Your task to perform on an android device: Search for seafood restaurants on Google Maps Image 0: 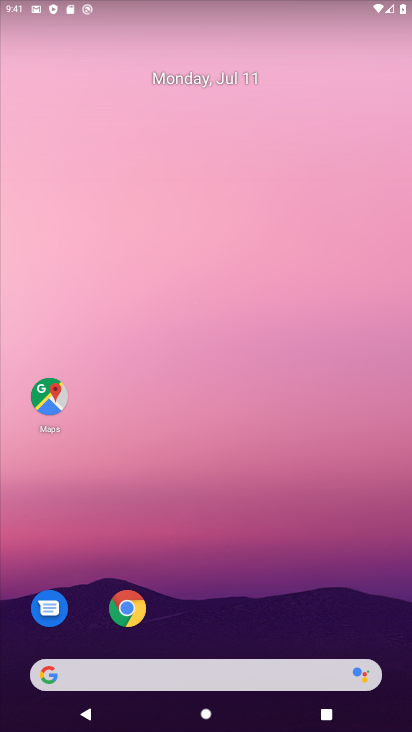
Step 0: drag from (298, 633) to (270, 209)
Your task to perform on an android device: Search for seafood restaurants on Google Maps Image 1: 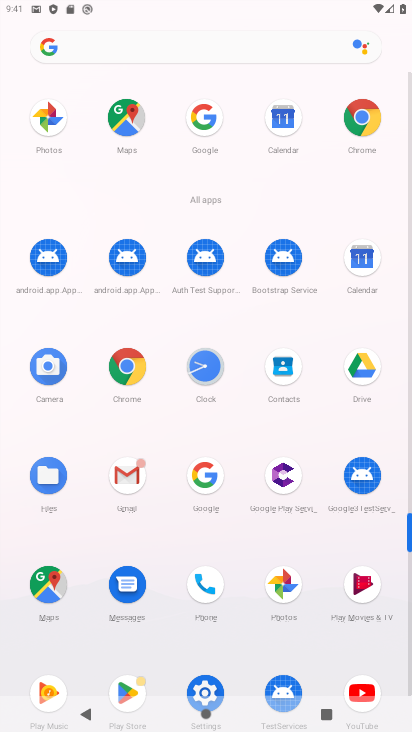
Step 1: click (55, 578)
Your task to perform on an android device: Search for seafood restaurants on Google Maps Image 2: 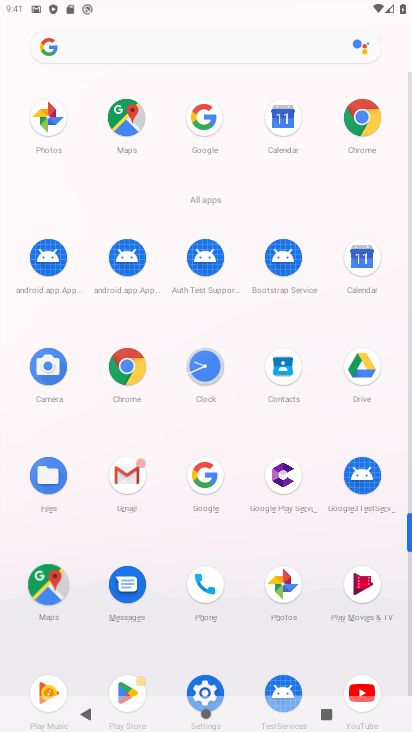
Step 2: click (54, 581)
Your task to perform on an android device: Search for seafood restaurants on Google Maps Image 3: 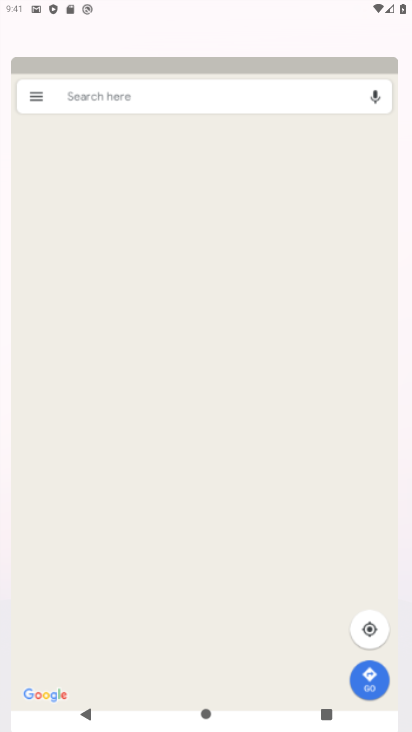
Step 3: click (53, 581)
Your task to perform on an android device: Search for seafood restaurants on Google Maps Image 4: 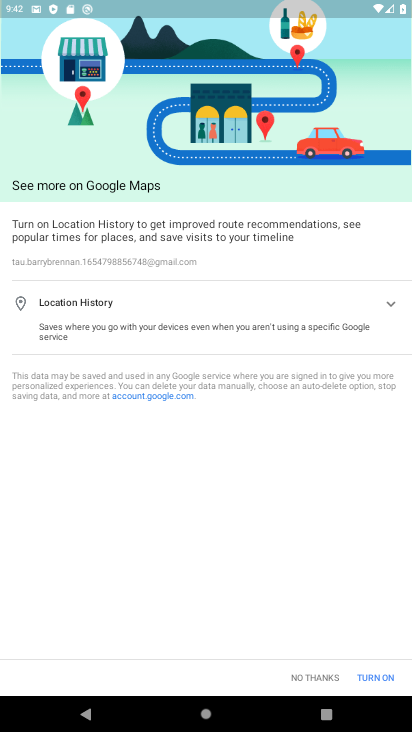
Step 4: click (366, 672)
Your task to perform on an android device: Search for seafood restaurants on Google Maps Image 5: 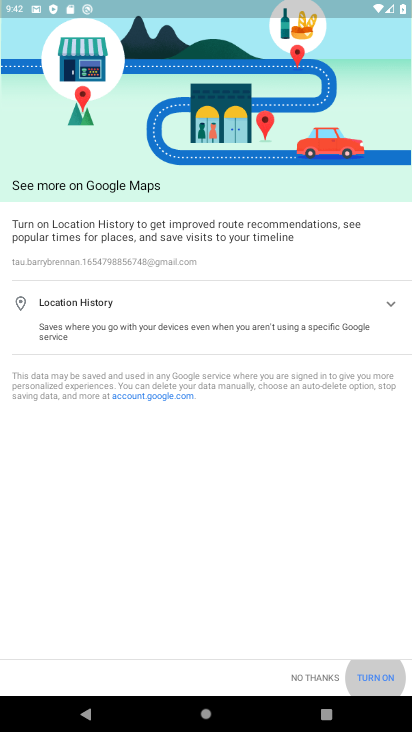
Step 5: click (369, 672)
Your task to perform on an android device: Search for seafood restaurants on Google Maps Image 6: 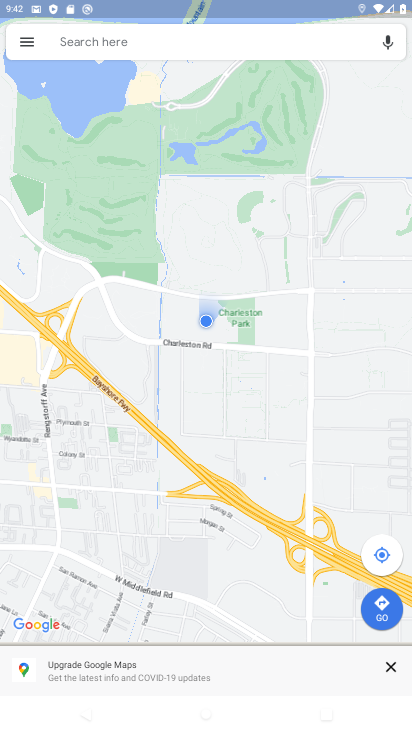
Step 6: click (61, 27)
Your task to perform on an android device: Search for seafood restaurants on Google Maps Image 7: 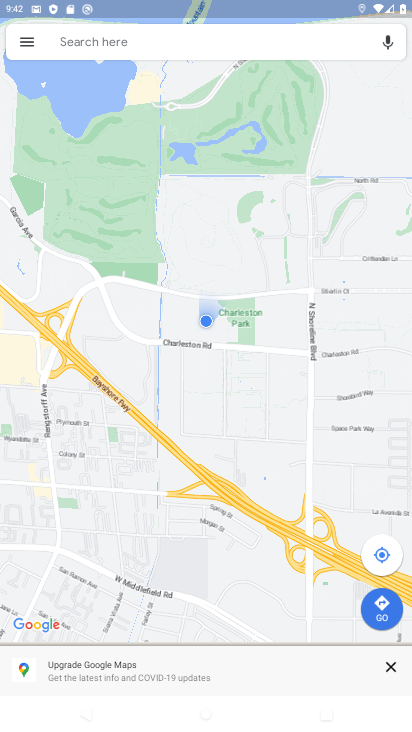
Step 7: click (67, 37)
Your task to perform on an android device: Search for seafood restaurants on Google Maps Image 8: 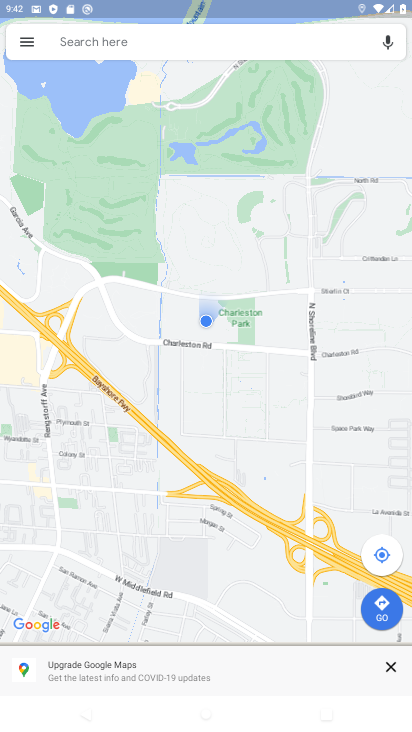
Step 8: click (68, 38)
Your task to perform on an android device: Search for seafood restaurants on Google Maps Image 9: 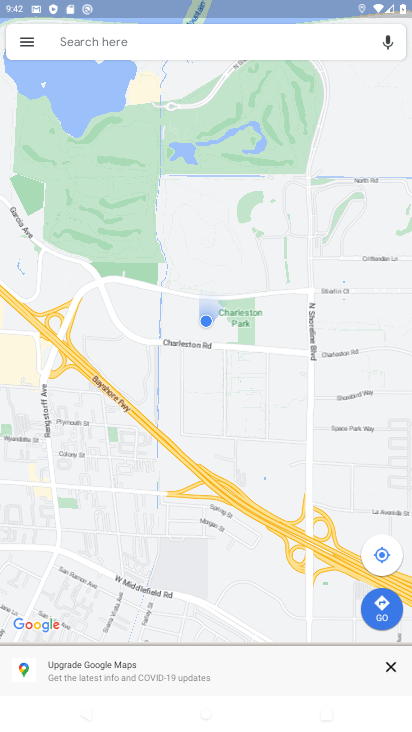
Step 9: click (68, 38)
Your task to perform on an android device: Search for seafood restaurants on Google Maps Image 10: 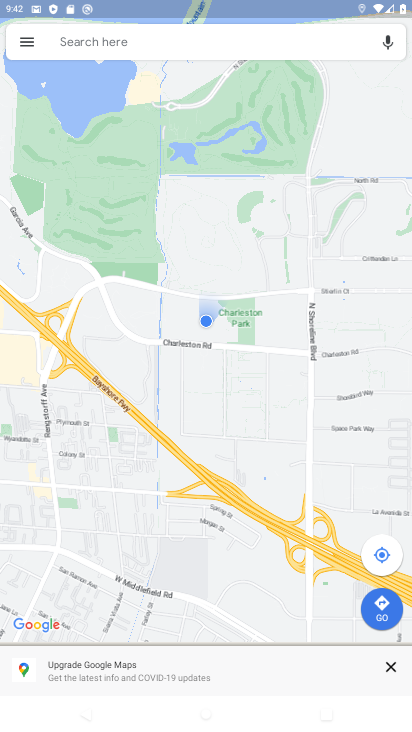
Step 10: click (68, 38)
Your task to perform on an android device: Search for seafood restaurants on Google Maps Image 11: 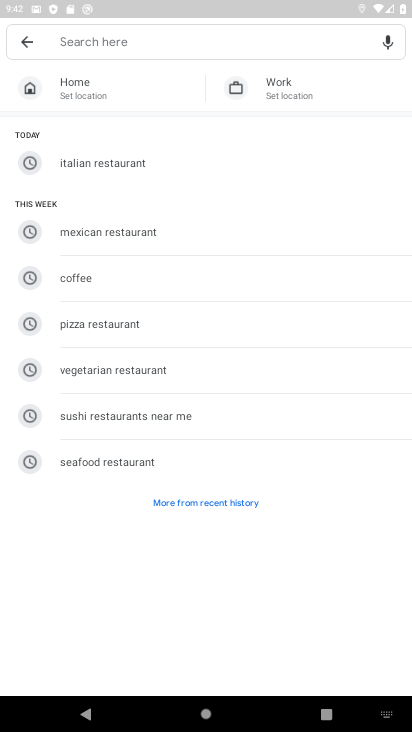
Step 11: click (98, 461)
Your task to perform on an android device: Search for seafood restaurants on Google Maps Image 12: 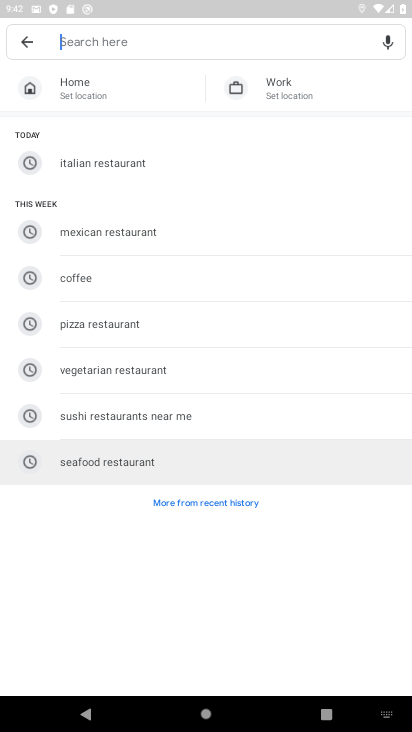
Step 12: click (98, 458)
Your task to perform on an android device: Search for seafood restaurants on Google Maps Image 13: 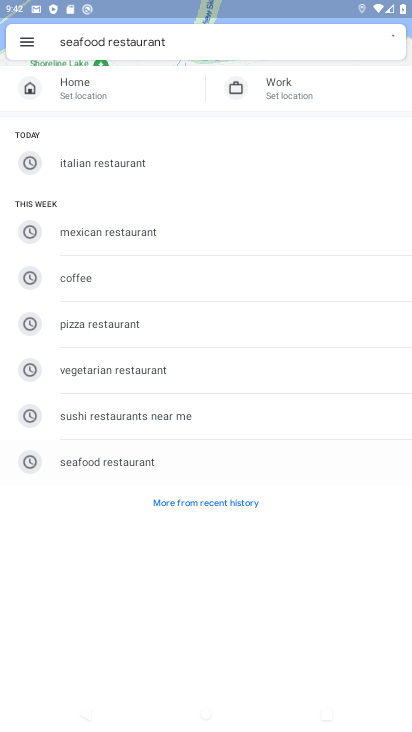
Step 13: click (98, 458)
Your task to perform on an android device: Search for seafood restaurants on Google Maps Image 14: 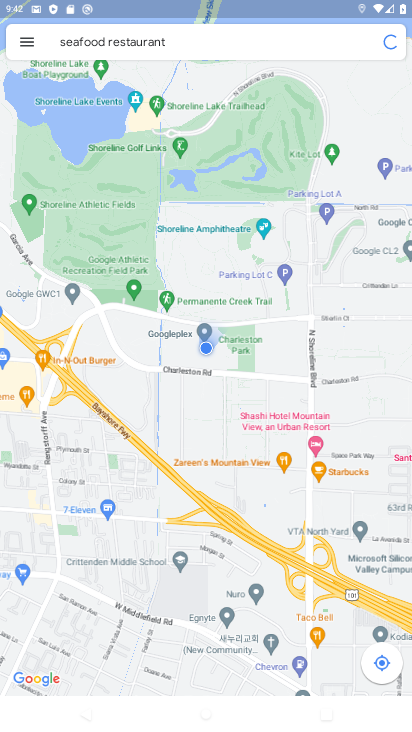
Step 14: click (111, 464)
Your task to perform on an android device: Search for seafood restaurants on Google Maps Image 15: 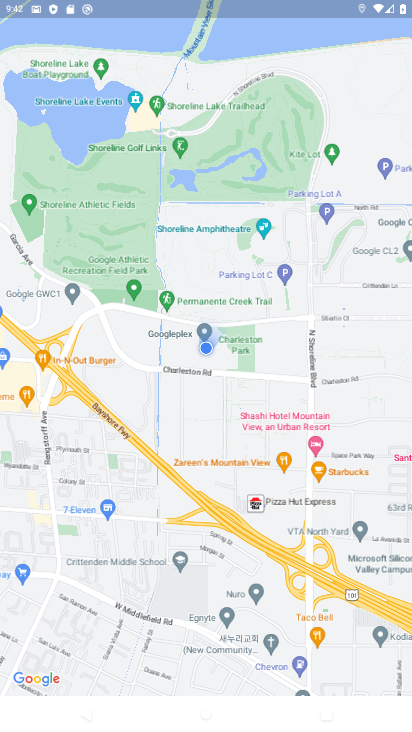
Step 15: task complete